Your task to perform on an android device: turn off translation in the chrome app Image 0: 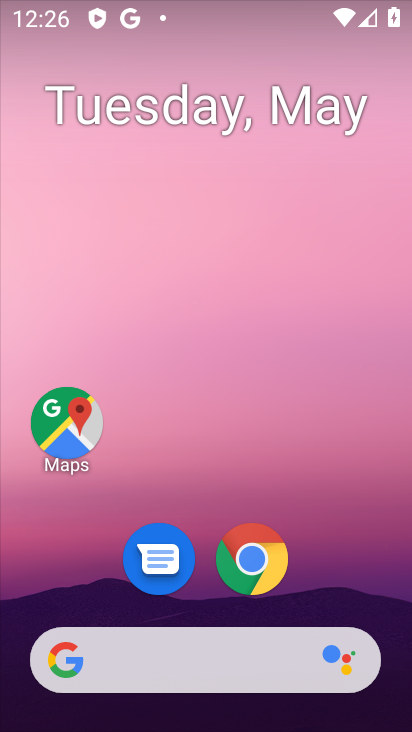
Step 0: click (257, 558)
Your task to perform on an android device: turn off translation in the chrome app Image 1: 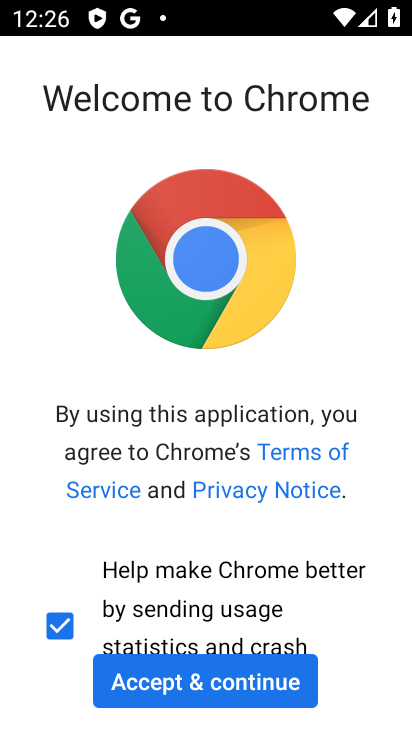
Step 1: click (198, 662)
Your task to perform on an android device: turn off translation in the chrome app Image 2: 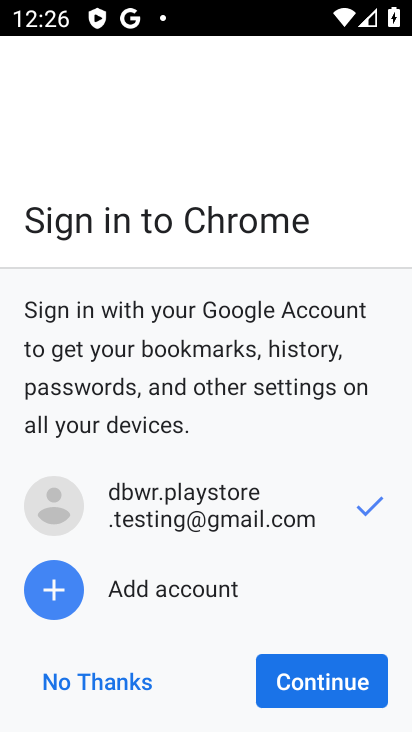
Step 2: click (349, 682)
Your task to perform on an android device: turn off translation in the chrome app Image 3: 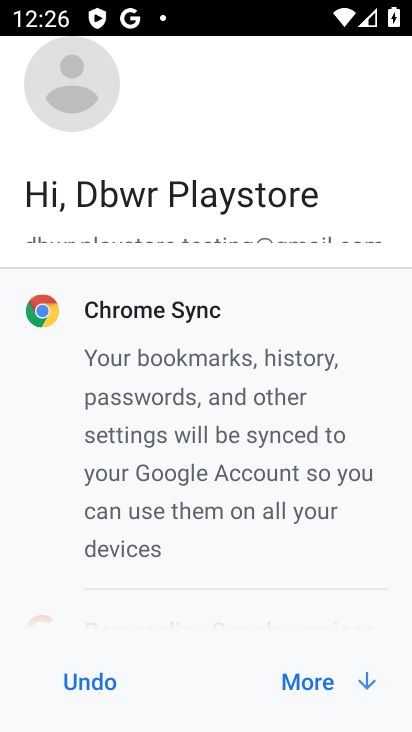
Step 3: click (349, 682)
Your task to perform on an android device: turn off translation in the chrome app Image 4: 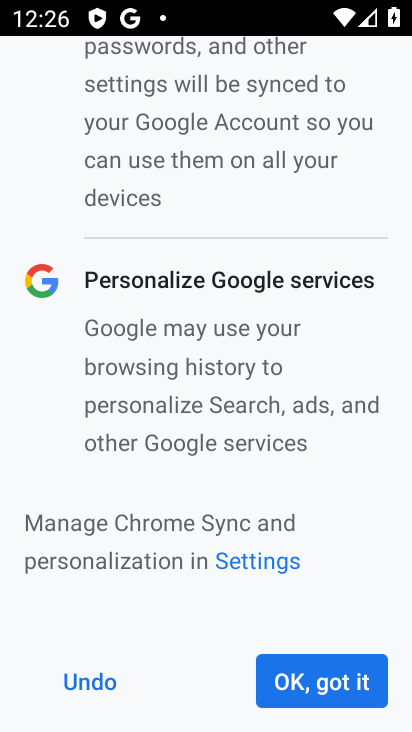
Step 4: click (349, 682)
Your task to perform on an android device: turn off translation in the chrome app Image 5: 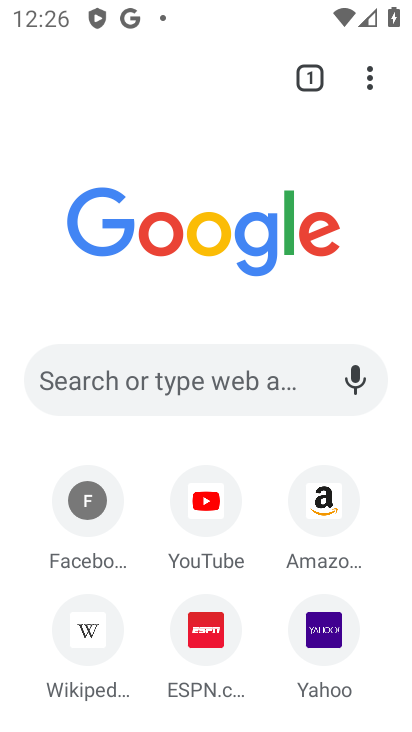
Step 5: click (362, 74)
Your task to perform on an android device: turn off translation in the chrome app Image 6: 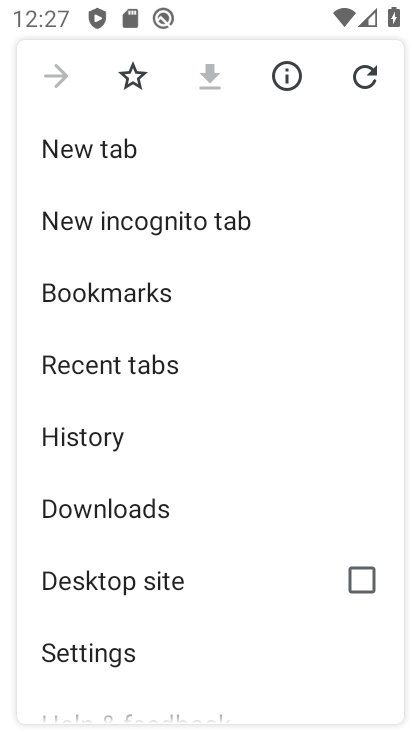
Step 6: drag from (213, 545) to (172, 198)
Your task to perform on an android device: turn off translation in the chrome app Image 7: 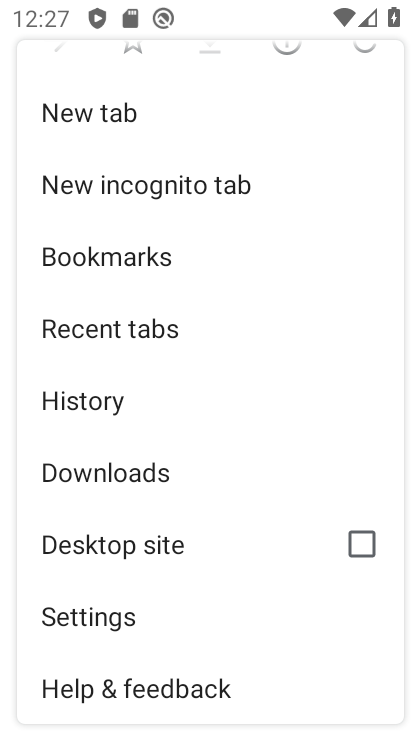
Step 7: click (143, 607)
Your task to perform on an android device: turn off translation in the chrome app Image 8: 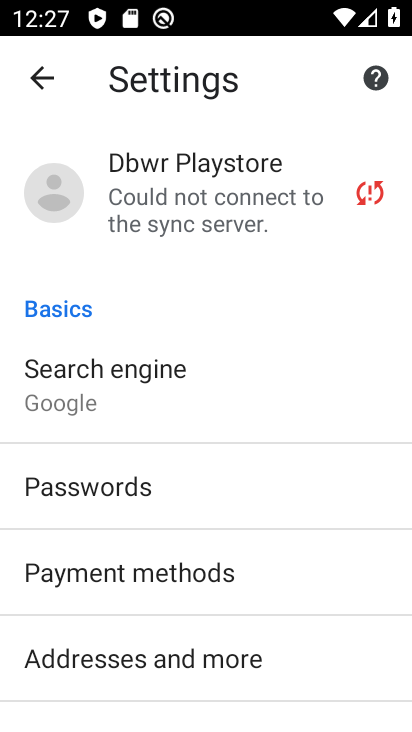
Step 8: drag from (183, 414) to (187, 230)
Your task to perform on an android device: turn off translation in the chrome app Image 9: 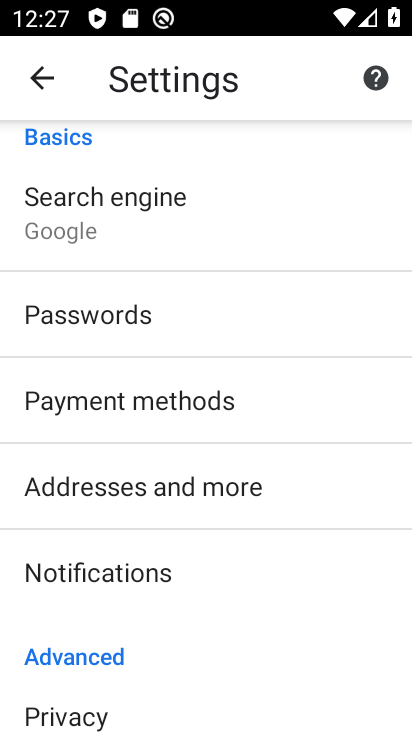
Step 9: drag from (240, 623) to (306, 224)
Your task to perform on an android device: turn off translation in the chrome app Image 10: 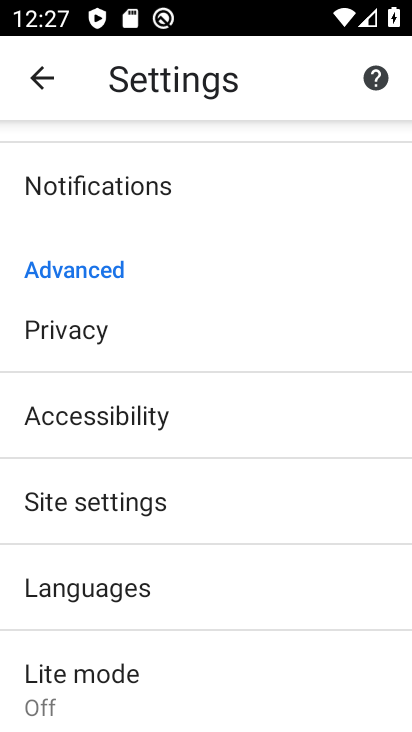
Step 10: drag from (173, 606) to (165, 117)
Your task to perform on an android device: turn off translation in the chrome app Image 11: 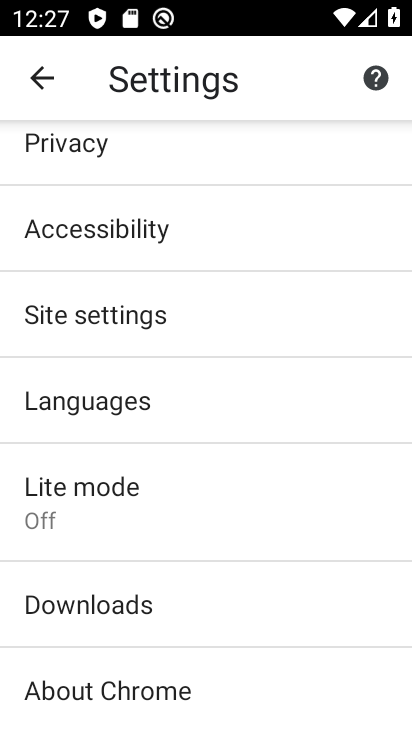
Step 11: click (130, 318)
Your task to perform on an android device: turn off translation in the chrome app Image 12: 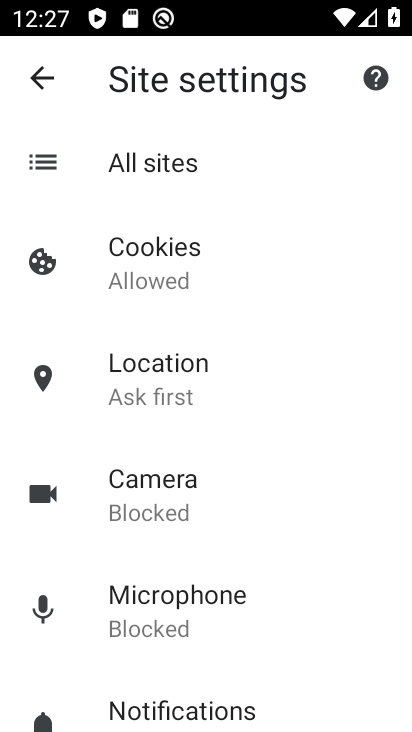
Step 12: drag from (195, 627) to (190, 253)
Your task to perform on an android device: turn off translation in the chrome app Image 13: 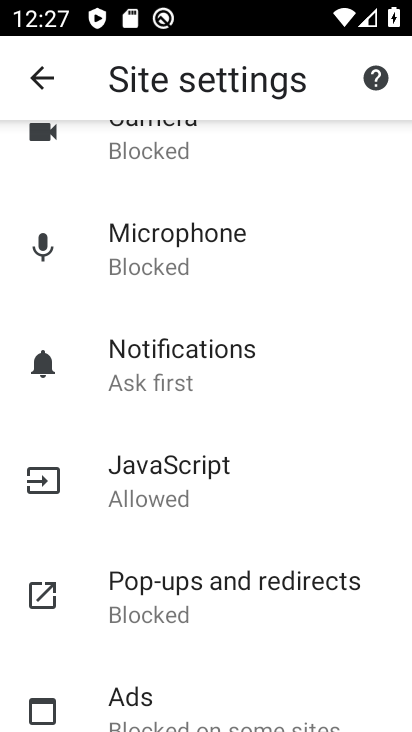
Step 13: drag from (200, 563) to (204, 327)
Your task to perform on an android device: turn off translation in the chrome app Image 14: 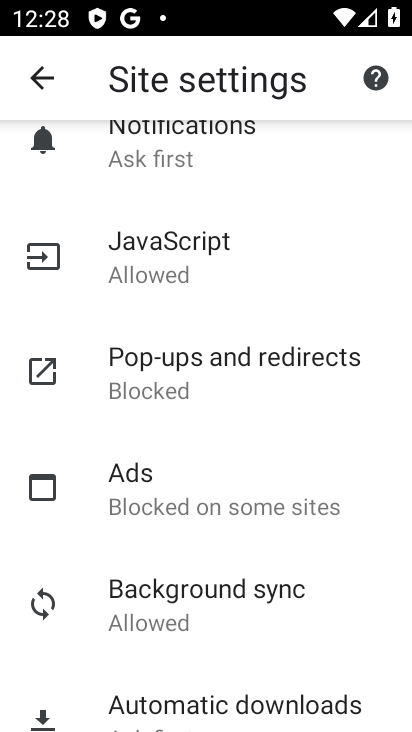
Step 14: drag from (313, 393) to (334, 226)
Your task to perform on an android device: turn off translation in the chrome app Image 15: 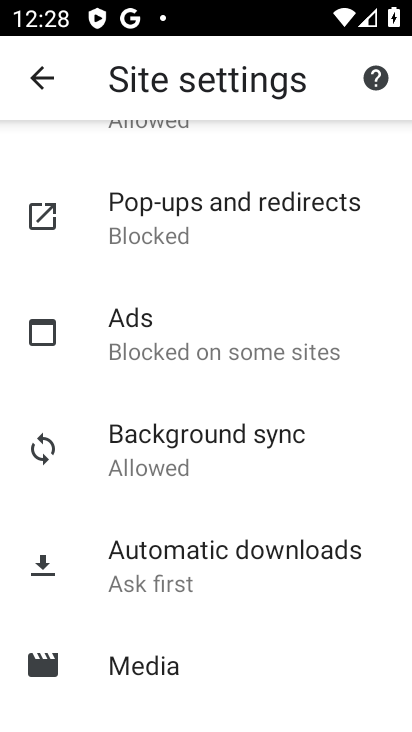
Step 15: drag from (279, 558) to (309, 306)
Your task to perform on an android device: turn off translation in the chrome app Image 16: 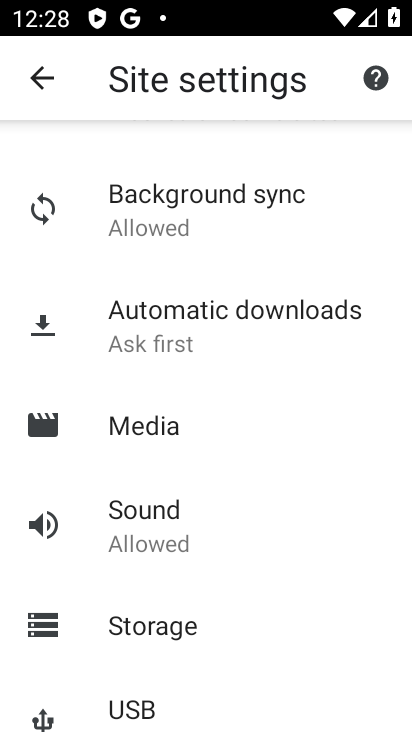
Step 16: drag from (230, 557) to (227, 268)
Your task to perform on an android device: turn off translation in the chrome app Image 17: 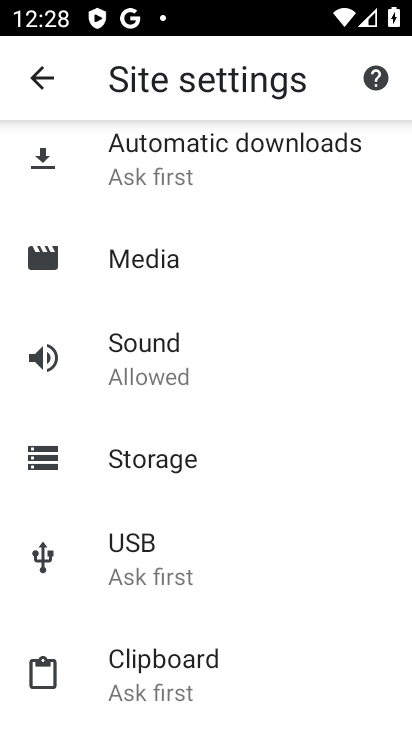
Step 17: drag from (196, 593) to (239, 311)
Your task to perform on an android device: turn off translation in the chrome app Image 18: 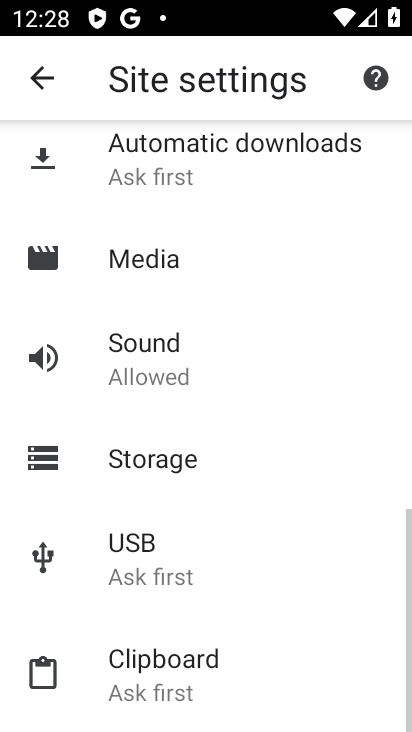
Step 18: drag from (192, 295) to (177, 712)
Your task to perform on an android device: turn off translation in the chrome app Image 19: 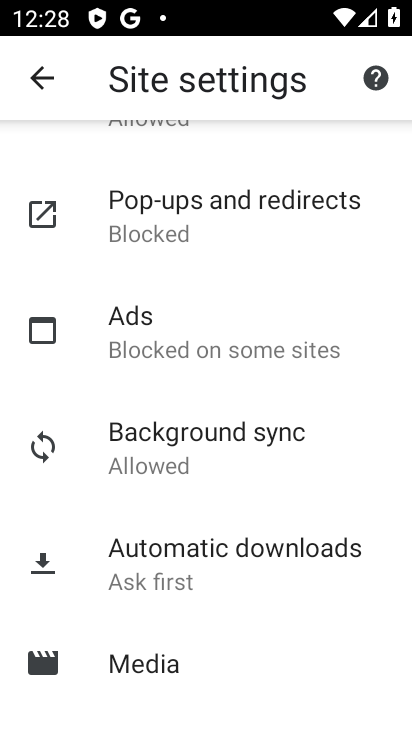
Step 19: drag from (202, 432) to (209, 575)
Your task to perform on an android device: turn off translation in the chrome app Image 20: 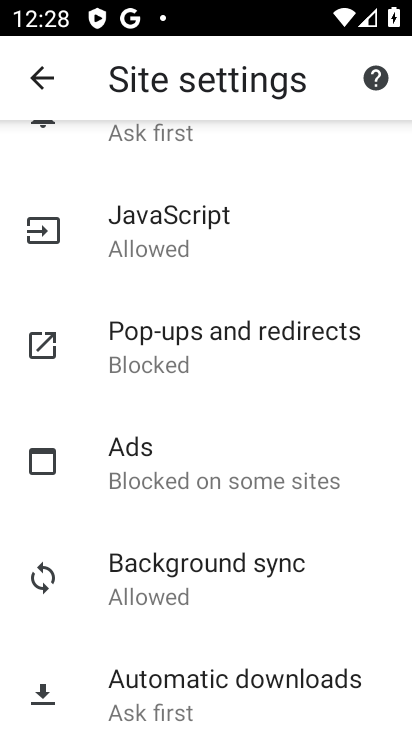
Step 20: drag from (213, 348) to (205, 663)
Your task to perform on an android device: turn off translation in the chrome app Image 21: 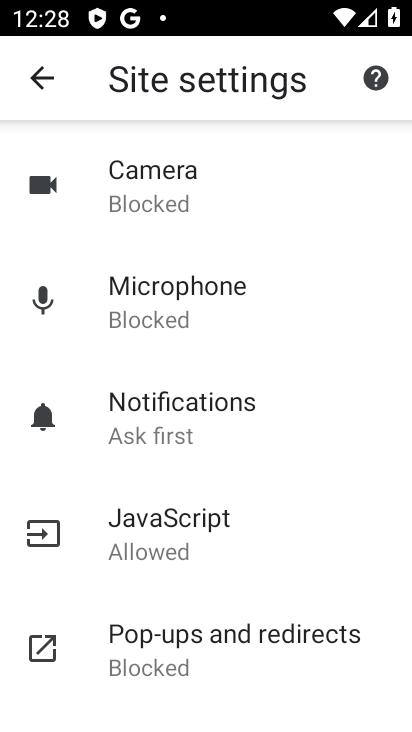
Step 21: drag from (209, 436) to (238, 657)
Your task to perform on an android device: turn off translation in the chrome app Image 22: 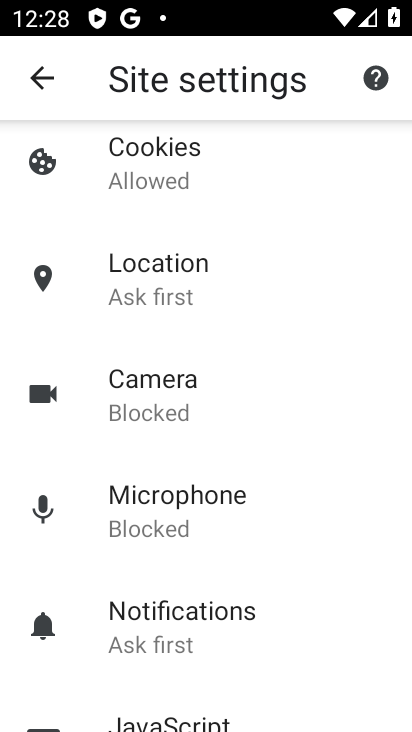
Step 22: drag from (236, 441) to (259, 659)
Your task to perform on an android device: turn off translation in the chrome app Image 23: 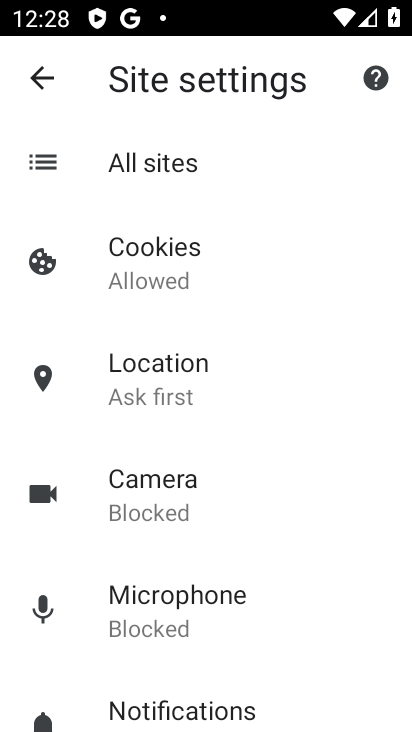
Step 23: press back button
Your task to perform on an android device: turn off translation in the chrome app Image 24: 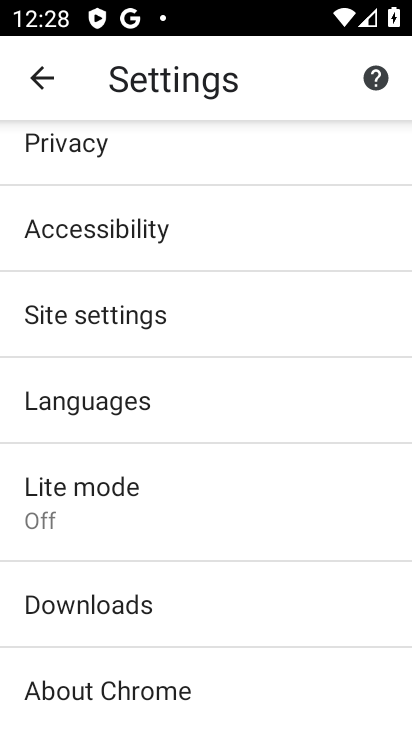
Step 24: click (77, 412)
Your task to perform on an android device: turn off translation in the chrome app Image 25: 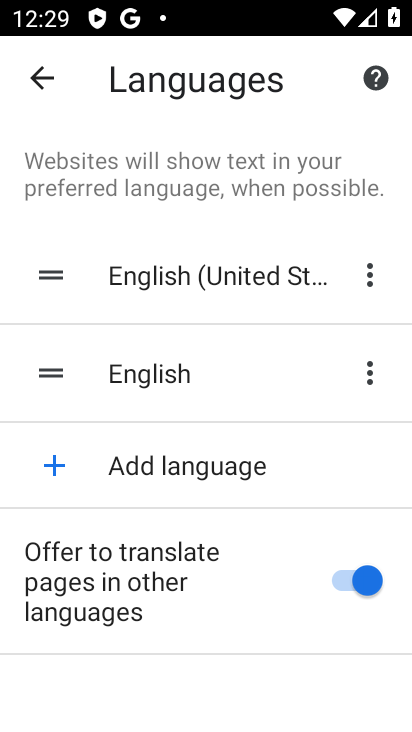
Step 25: click (372, 567)
Your task to perform on an android device: turn off translation in the chrome app Image 26: 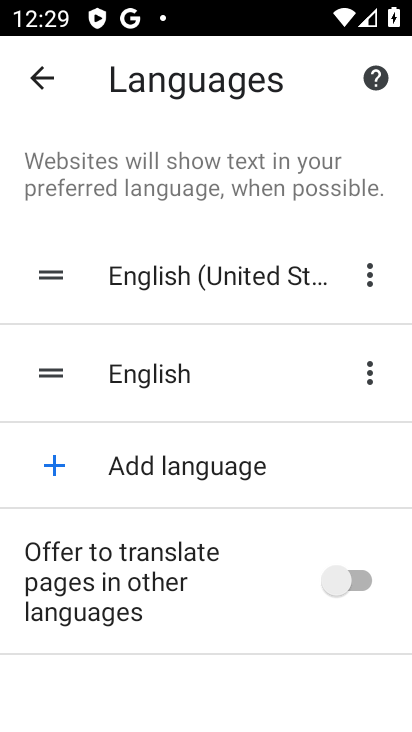
Step 26: task complete